Your task to perform on an android device: What are the best selling refrigerators at Home Depot? Image 0: 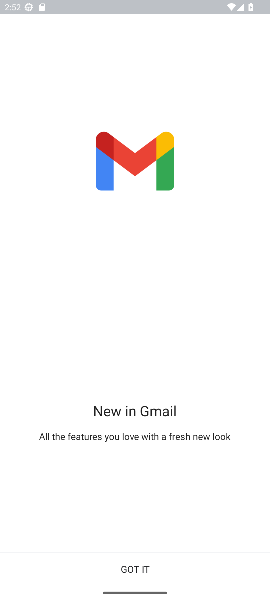
Step 0: press home button
Your task to perform on an android device: What are the best selling refrigerators at Home Depot? Image 1: 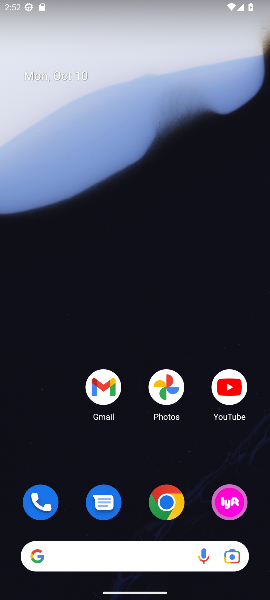
Step 1: click (169, 507)
Your task to perform on an android device: What are the best selling refrigerators at Home Depot? Image 2: 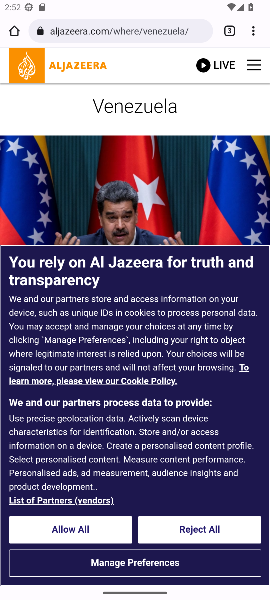
Step 2: click (85, 31)
Your task to perform on an android device: What are the best selling refrigerators at Home Depot? Image 3: 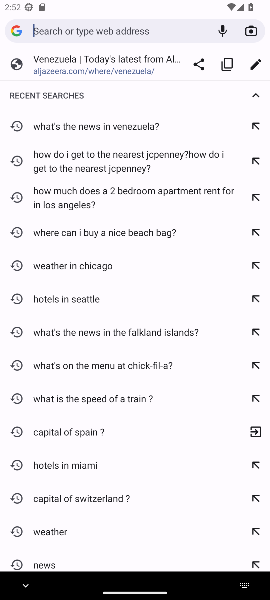
Step 3: type "What are the best selling refrigerators at Home Depot?"
Your task to perform on an android device: What are the best selling refrigerators at Home Depot? Image 4: 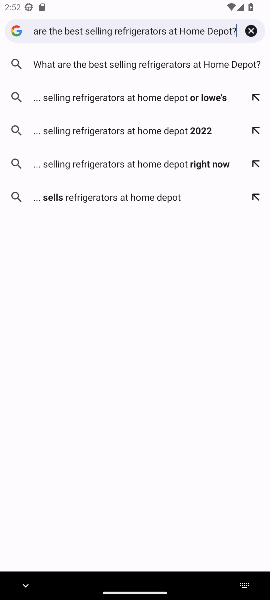
Step 4: click (169, 62)
Your task to perform on an android device: What are the best selling refrigerators at Home Depot? Image 5: 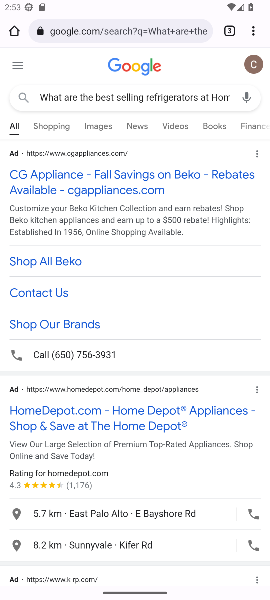
Step 5: click (129, 175)
Your task to perform on an android device: What are the best selling refrigerators at Home Depot? Image 6: 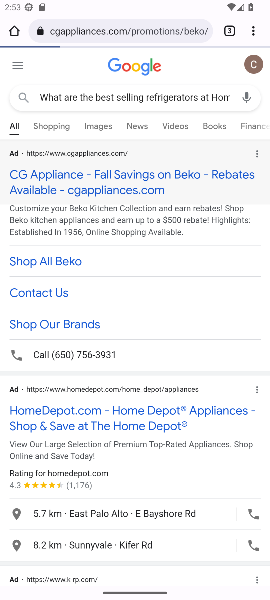
Step 6: task complete